Your task to perform on an android device: change the clock display to show seconds Image 0: 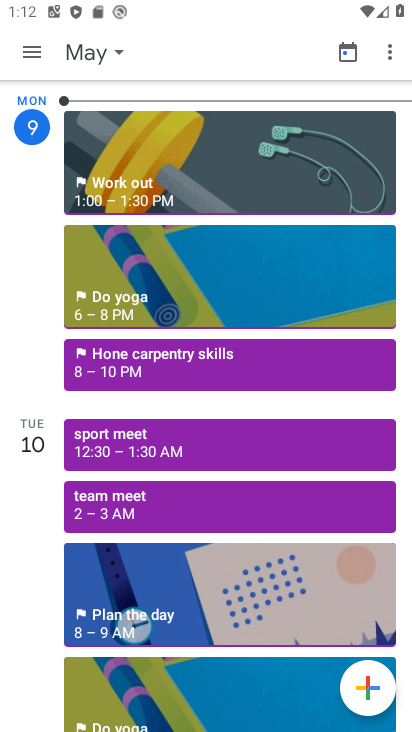
Step 0: press back button
Your task to perform on an android device: change the clock display to show seconds Image 1: 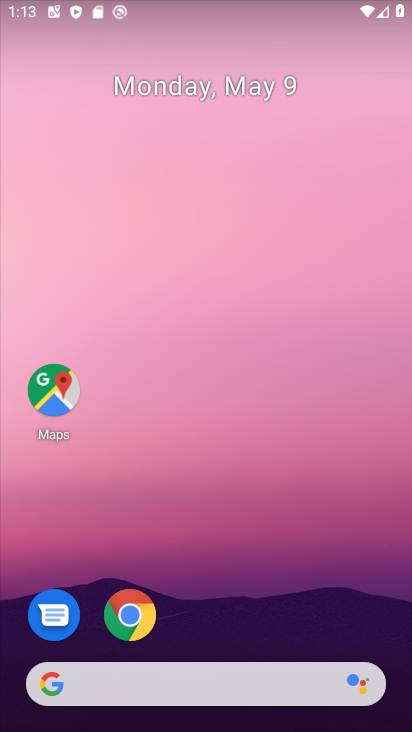
Step 1: drag from (249, 591) to (212, 100)
Your task to perform on an android device: change the clock display to show seconds Image 2: 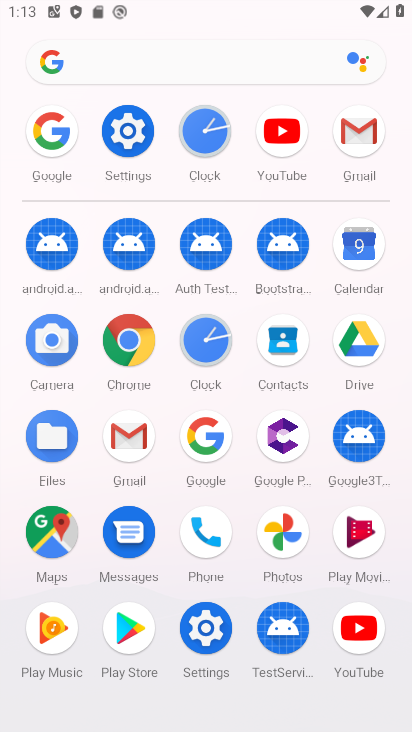
Step 2: click (205, 128)
Your task to perform on an android device: change the clock display to show seconds Image 3: 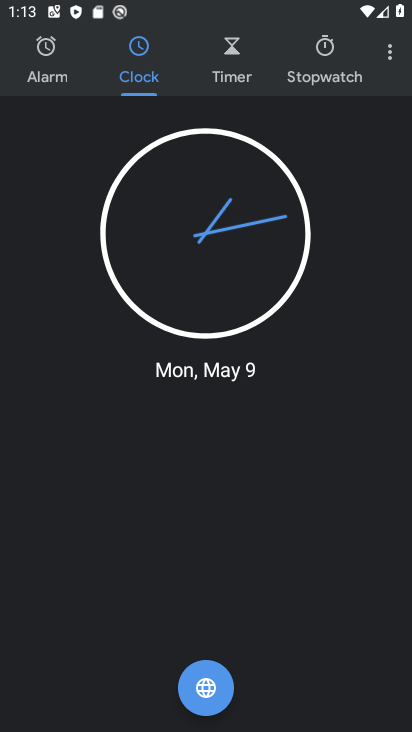
Step 3: click (389, 54)
Your task to perform on an android device: change the clock display to show seconds Image 4: 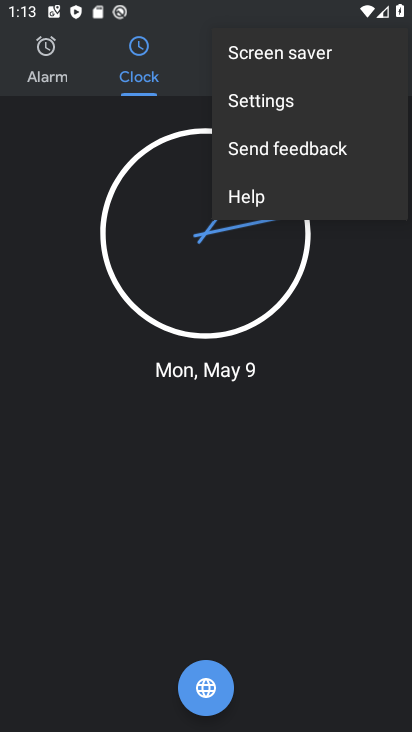
Step 4: click (262, 111)
Your task to perform on an android device: change the clock display to show seconds Image 5: 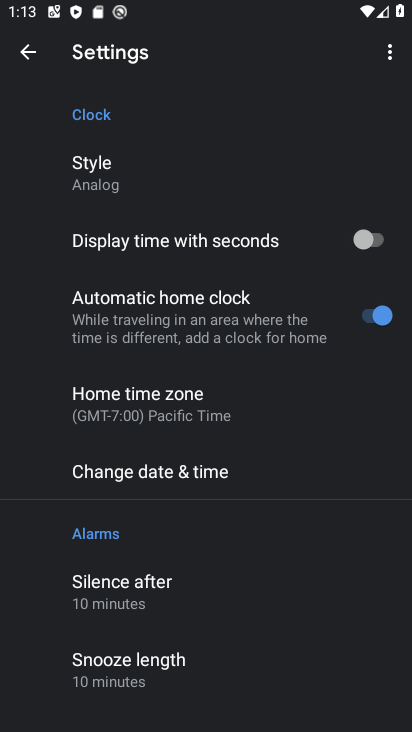
Step 5: click (358, 237)
Your task to perform on an android device: change the clock display to show seconds Image 6: 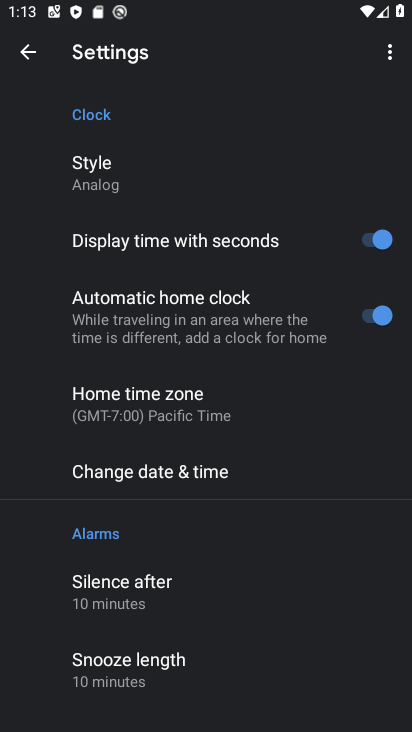
Step 6: task complete